Your task to perform on an android device: Go to Android settings Image 0: 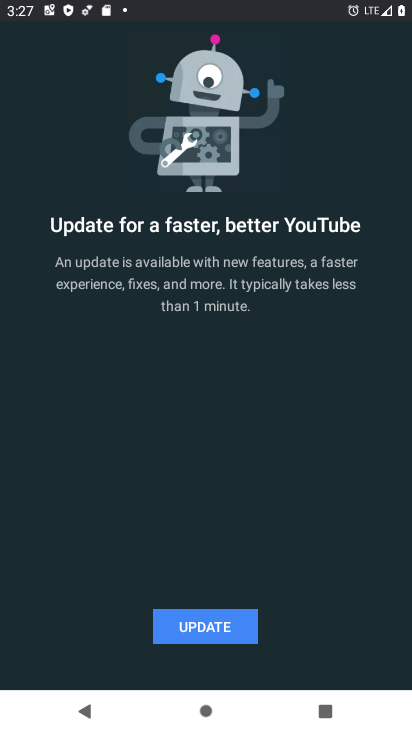
Step 0: press back button
Your task to perform on an android device: Go to Android settings Image 1: 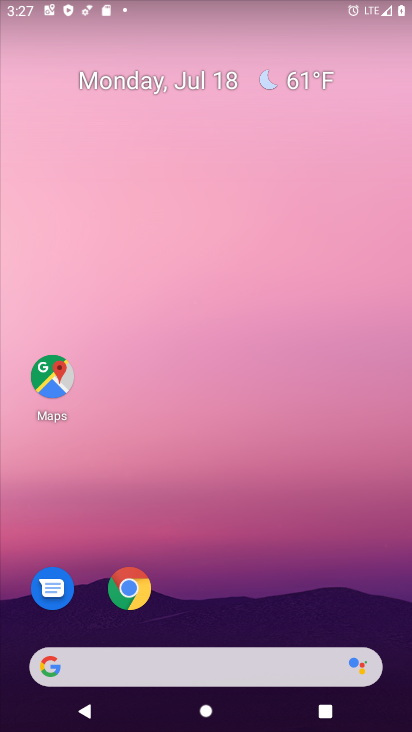
Step 1: drag from (212, 607) to (222, 10)
Your task to perform on an android device: Go to Android settings Image 2: 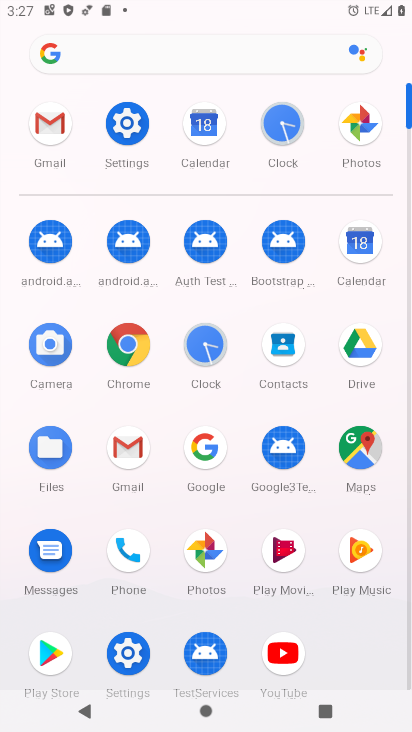
Step 2: click (111, 115)
Your task to perform on an android device: Go to Android settings Image 3: 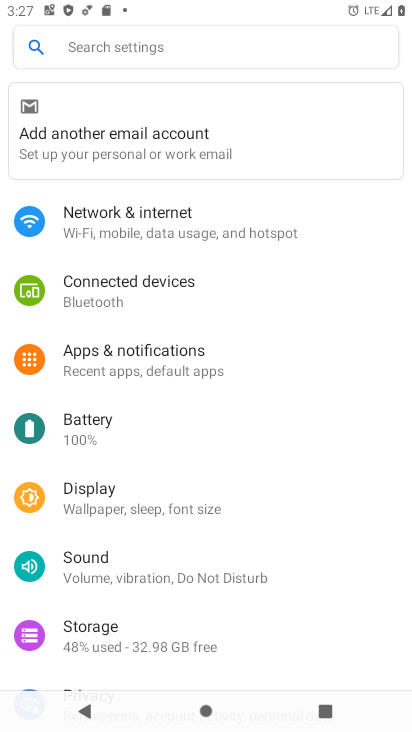
Step 3: drag from (144, 660) to (162, 104)
Your task to perform on an android device: Go to Android settings Image 4: 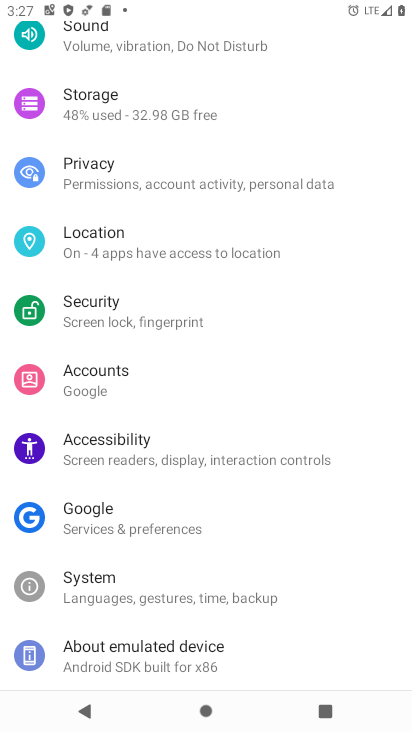
Step 4: drag from (86, 652) to (240, 13)
Your task to perform on an android device: Go to Android settings Image 5: 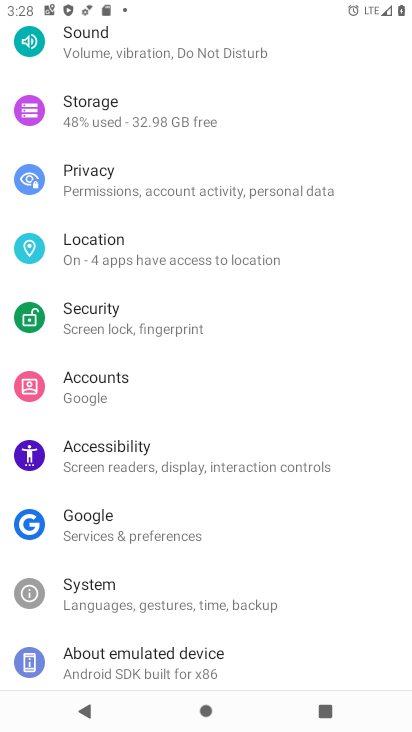
Step 5: drag from (109, 643) to (196, 116)
Your task to perform on an android device: Go to Android settings Image 6: 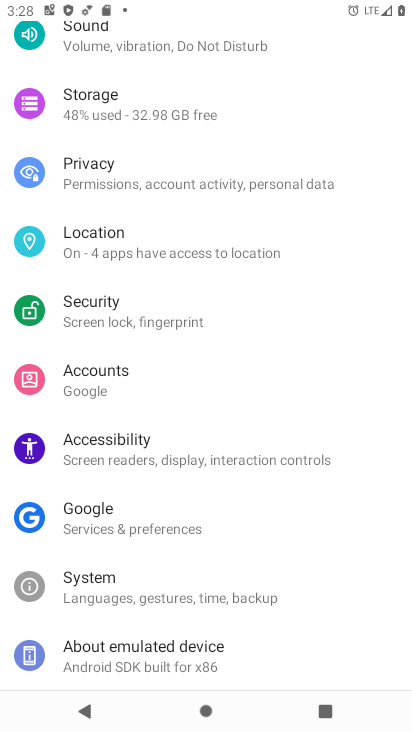
Step 6: click (89, 648)
Your task to perform on an android device: Go to Android settings Image 7: 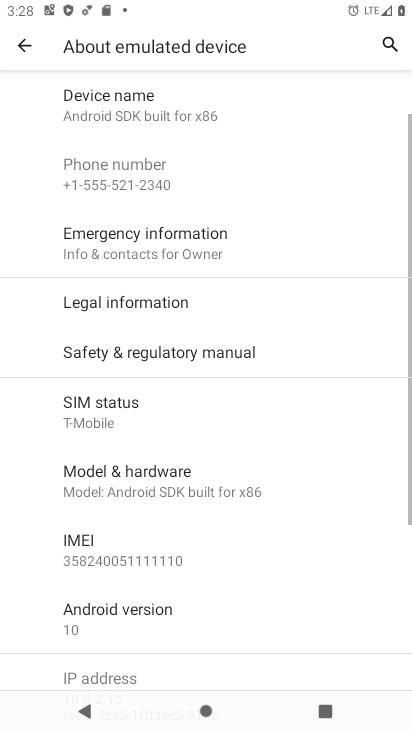
Step 7: click (102, 614)
Your task to perform on an android device: Go to Android settings Image 8: 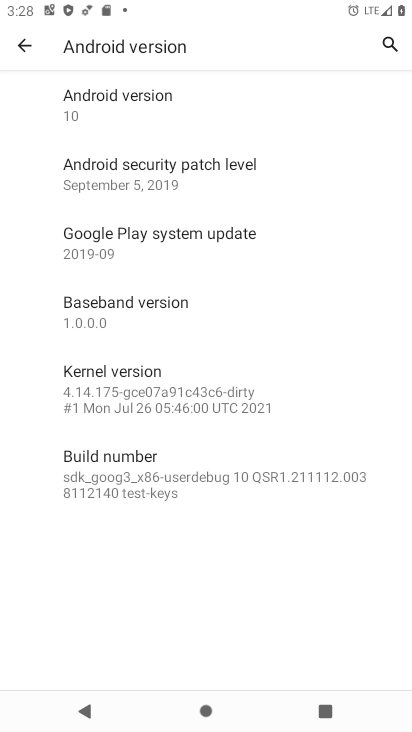
Step 8: task complete